Your task to perform on an android device: uninstall "Fetch Rewards" Image 0: 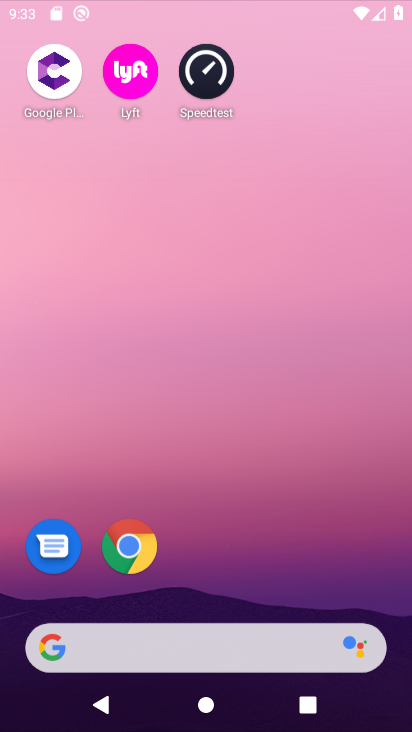
Step 0: press home button
Your task to perform on an android device: uninstall "Fetch Rewards" Image 1: 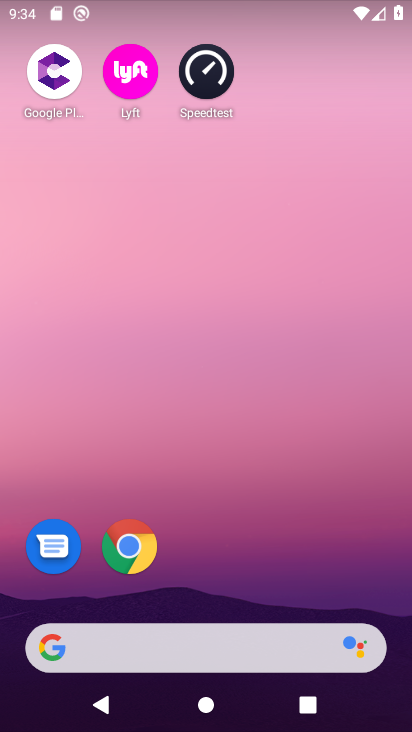
Step 1: drag from (226, 589) to (240, 0)
Your task to perform on an android device: uninstall "Fetch Rewards" Image 2: 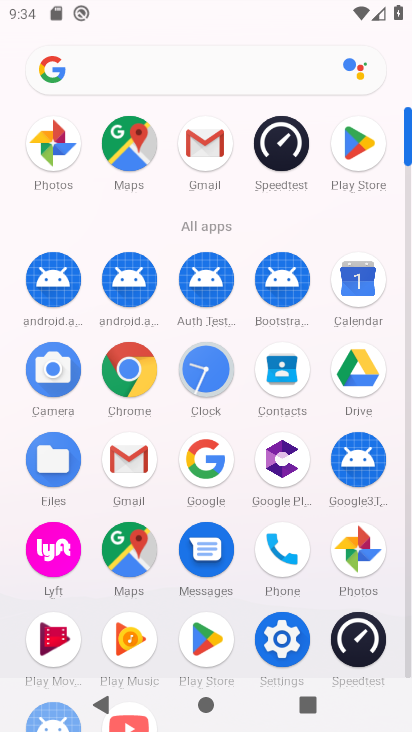
Step 2: click (357, 134)
Your task to perform on an android device: uninstall "Fetch Rewards" Image 3: 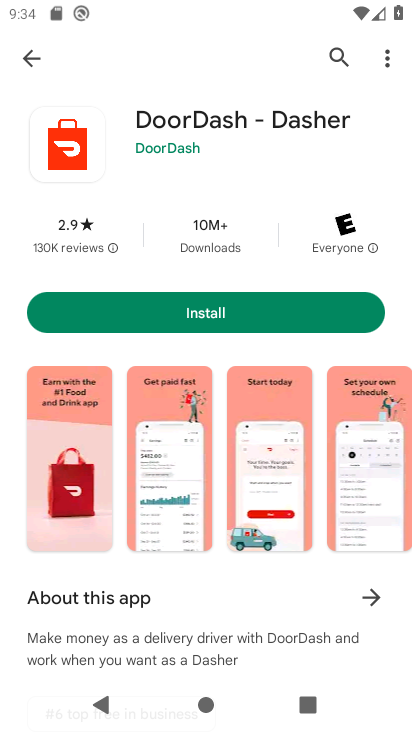
Step 3: click (334, 47)
Your task to perform on an android device: uninstall "Fetch Rewards" Image 4: 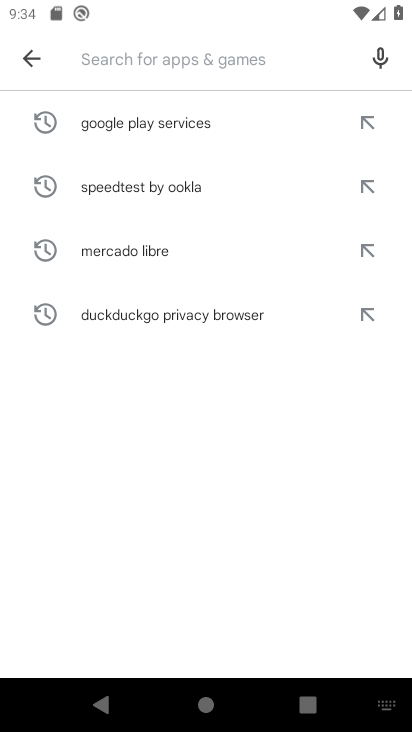
Step 4: type "etch Rewards"
Your task to perform on an android device: uninstall "Fetch Rewards" Image 5: 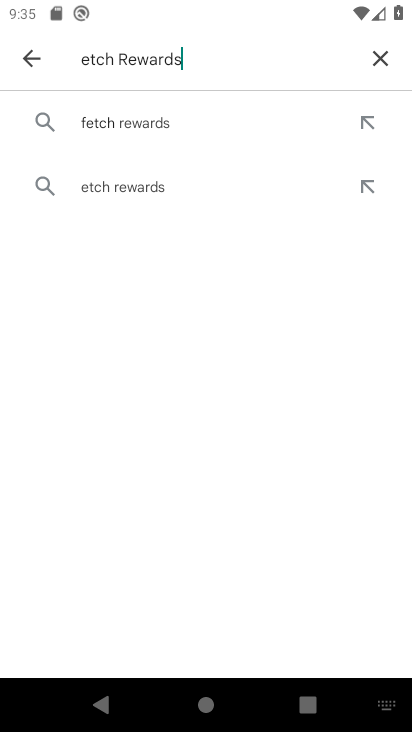
Step 5: click (392, 57)
Your task to perform on an android device: uninstall "Fetch Rewards" Image 6: 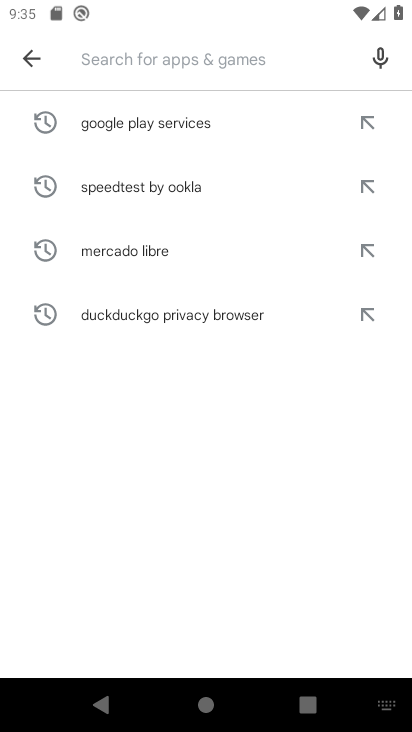
Step 6: type "Fetch Rewards"
Your task to perform on an android device: uninstall "Fetch Rewards" Image 7: 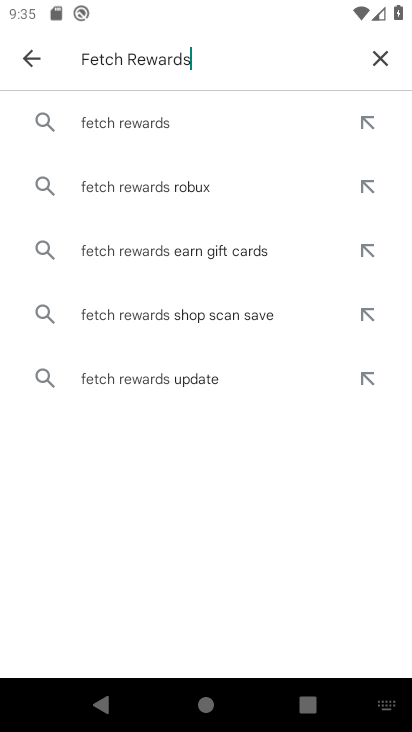
Step 7: click (182, 111)
Your task to perform on an android device: uninstall "Fetch Rewards" Image 8: 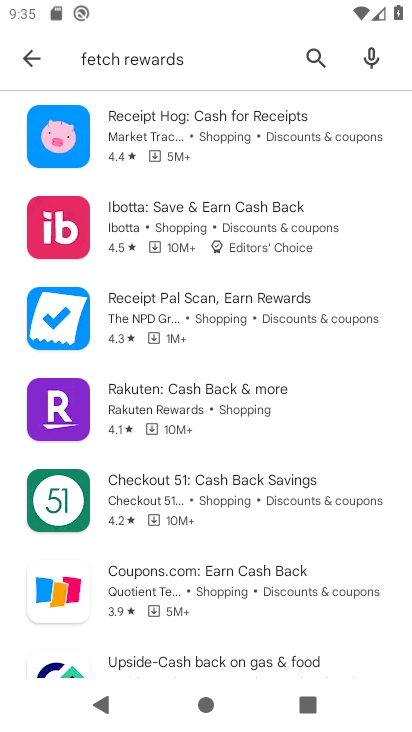
Step 8: task complete